Your task to perform on an android device: See recent photos Image 0: 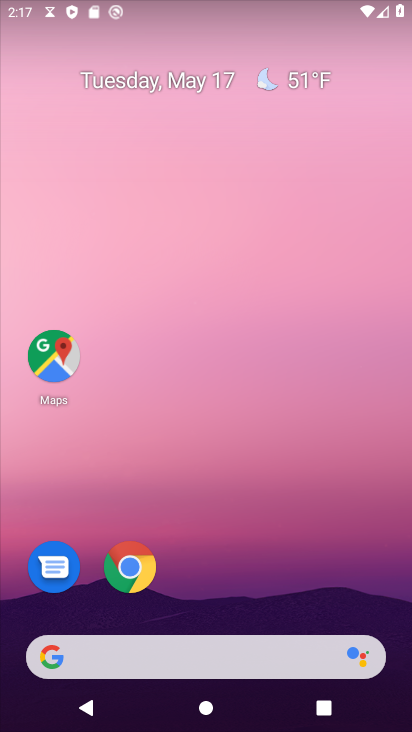
Step 0: drag from (196, 652) to (230, 113)
Your task to perform on an android device: See recent photos Image 1: 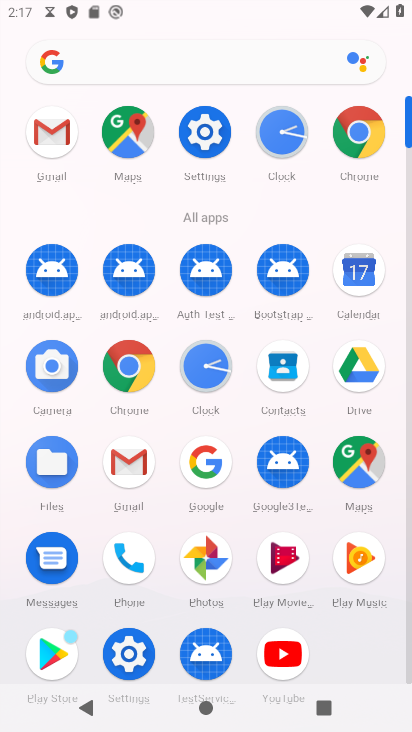
Step 1: click (199, 549)
Your task to perform on an android device: See recent photos Image 2: 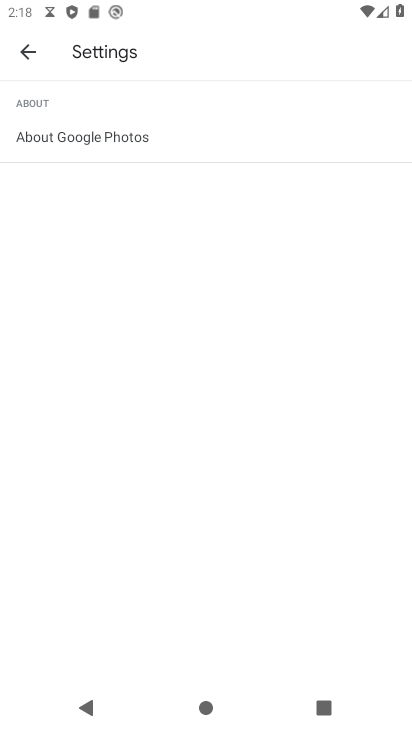
Step 2: click (36, 47)
Your task to perform on an android device: See recent photos Image 3: 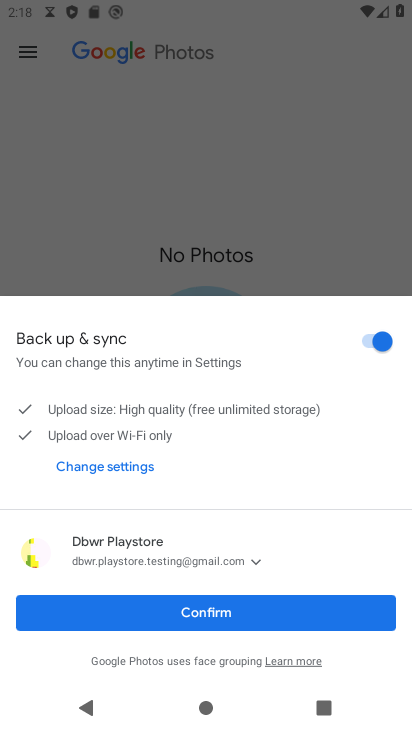
Step 3: click (200, 610)
Your task to perform on an android device: See recent photos Image 4: 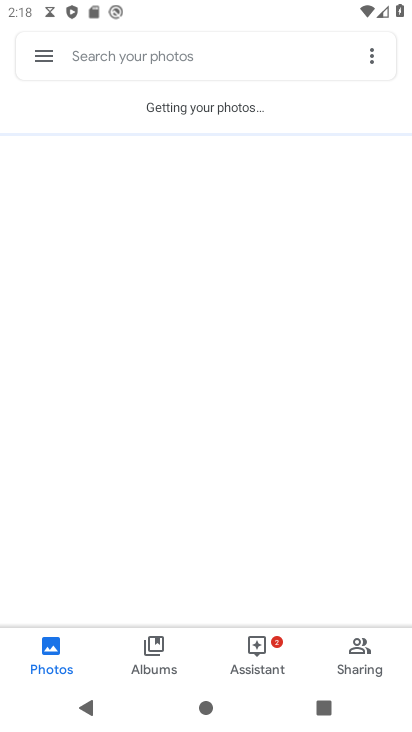
Step 4: task complete